Your task to perform on an android device: Open accessibility settings Image 0: 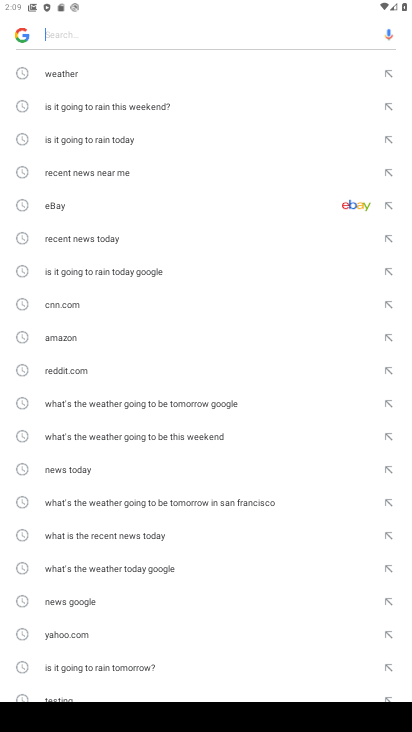
Step 0: press home button
Your task to perform on an android device: Open accessibility settings Image 1: 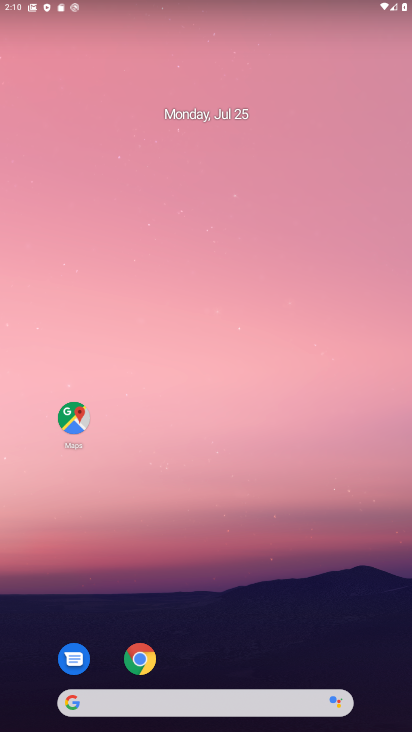
Step 1: drag from (156, 710) to (185, 436)
Your task to perform on an android device: Open accessibility settings Image 2: 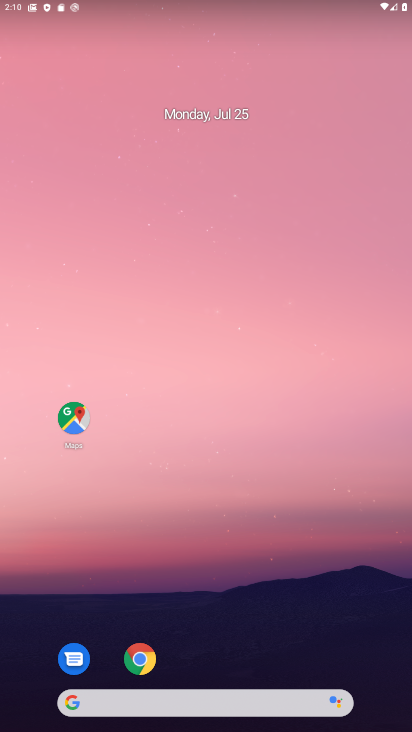
Step 2: drag from (235, 674) to (206, 184)
Your task to perform on an android device: Open accessibility settings Image 3: 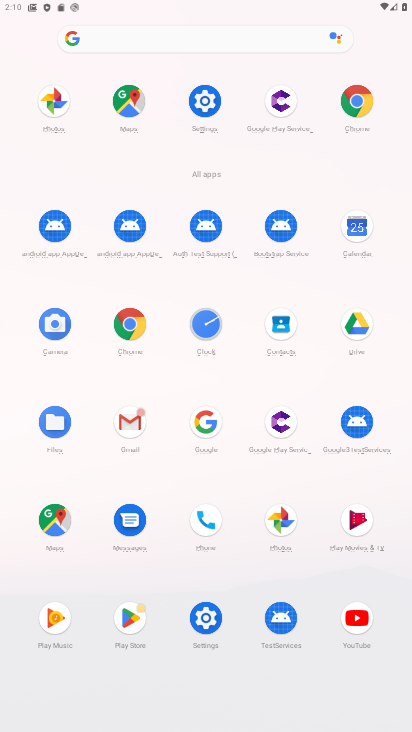
Step 3: click (208, 106)
Your task to perform on an android device: Open accessibility settings Image 4: 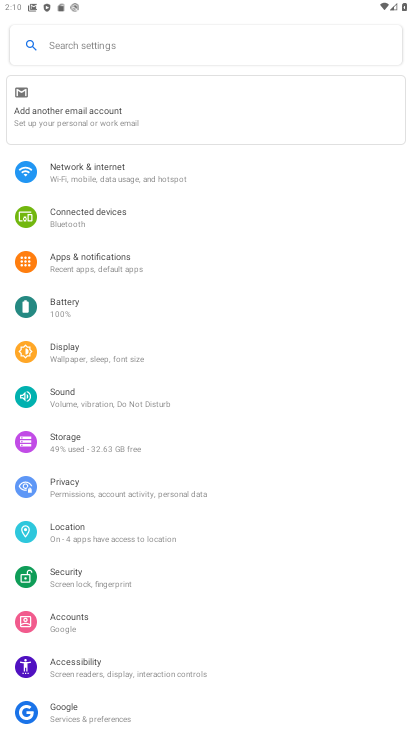
Step 4: click (81, 667)
Your task to perform on an android device: Open accessibility settings Image 5: 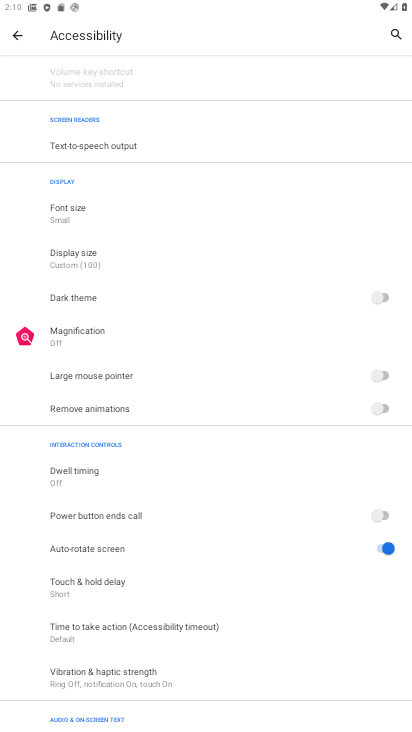
Step 5: task complete